Your task to perform on an android device: Add usb-c to usb-a to the cart on bestbuy Image 0: 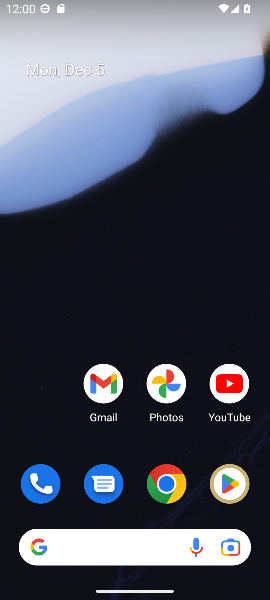
Step 0: click (163, 487)
Your task to perform on an android device: Add usb-c to usb-a to the cart on bestbuy Image 1: 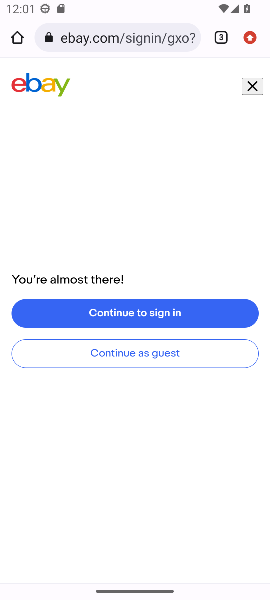
Step 1: click (130, 40)
Your task to perform on an android device: Add usb-c to usb-a to the cart on bestbuy Image 2: 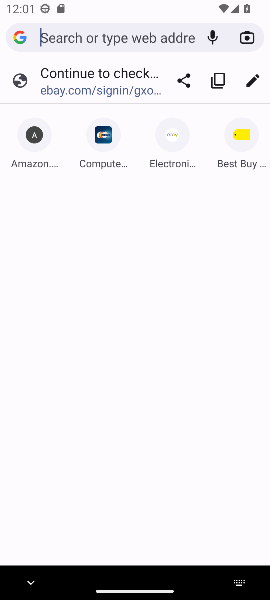
Step 2: click (248, 159)
Your task to perform on an android device: Add usb-c to usb-a to the cart on bestbuy Image 3: 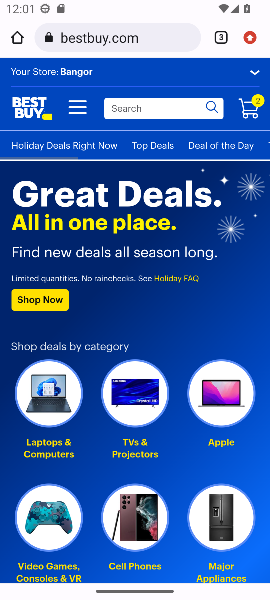
Step 3: click (155, 107)
Your task to perform on an android device: Add usb-c to usb-a to the cart on bestbuy Image 4: 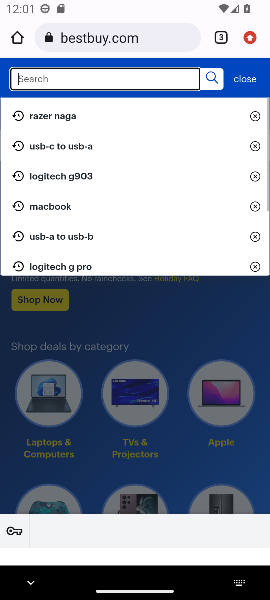
Step 4: click (65, 78)
Your task to perform on an android device: Add usb-c to usb-a to the cart on bestbuy Image 5: 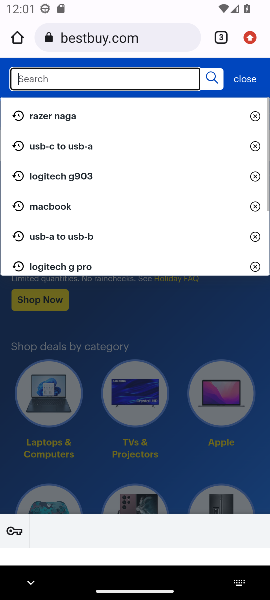
Step 5: click (57, 150)
Your task to perform on an android device: Add usb-c to usb-a to the cart on bestbuy Image 6: 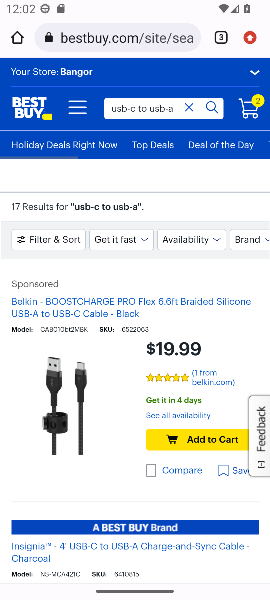
Step 6: drag from (119, 381) to (122, 257)
Your task to perform on an android device: Add usb-c to usb-a to the cart on bestbuy Image 7: 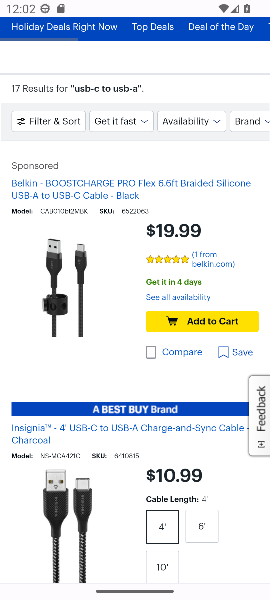
Step 7: drag from (110, 489) to (122, 376)
Your task to perform on an android device: Add usb-c to usb-a to the cart on bestbuy Image 8: 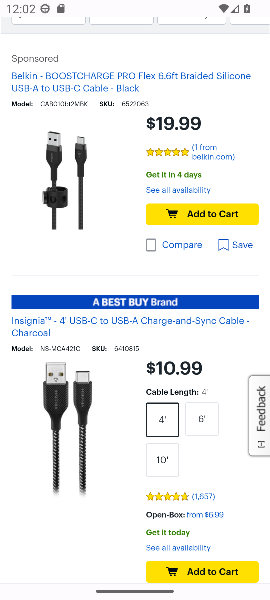
Step 8: drag from (206, 532) to (210, 392)
Your task to perform on an android device: Add usb-c to usb-a to the cart on bestbuy Image 9: 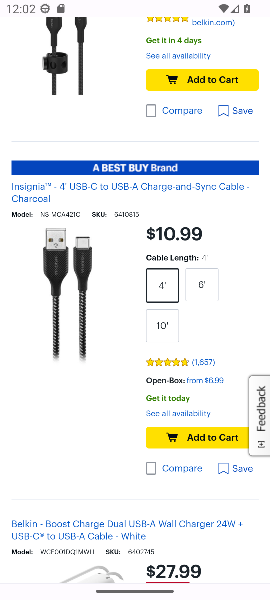
Step 9: click (172, 452)
Your task to perform on an android device: Add usb-c to usb-a to the cart on bestbuy Image 10: 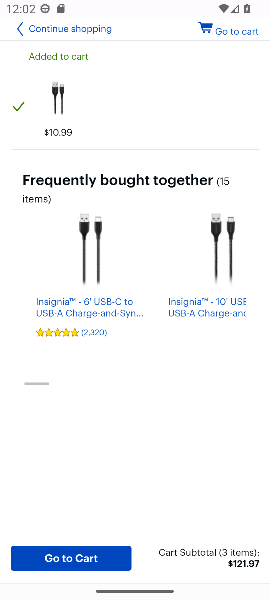
Step 10: task complete